Your task to perform on an android device: Is it going to rain this weekend? Image 0: 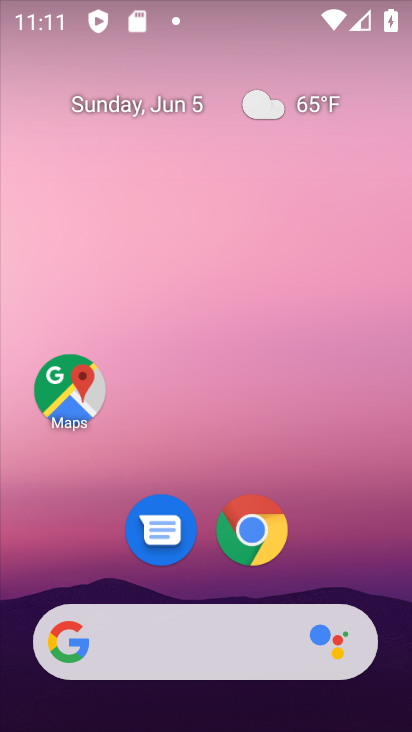
Step 0: drag from (375, 516) to (360, 2)
Your task to perform on an android device: Is it going to rain this weekend? Image 1: 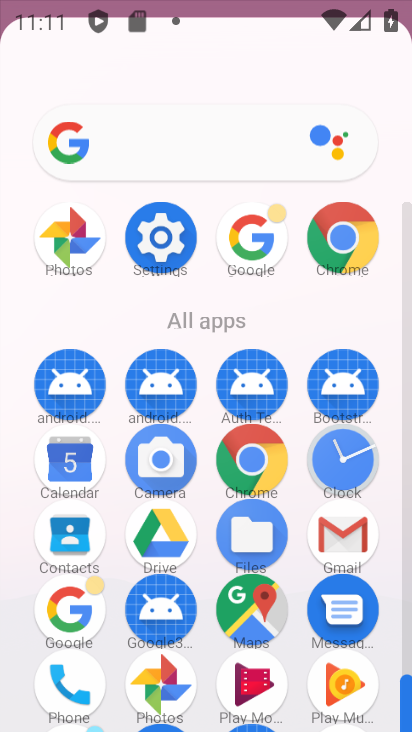
Step 1: press home button
Your task to perform on an android device: Is it going to rain this weekend? Image 2: 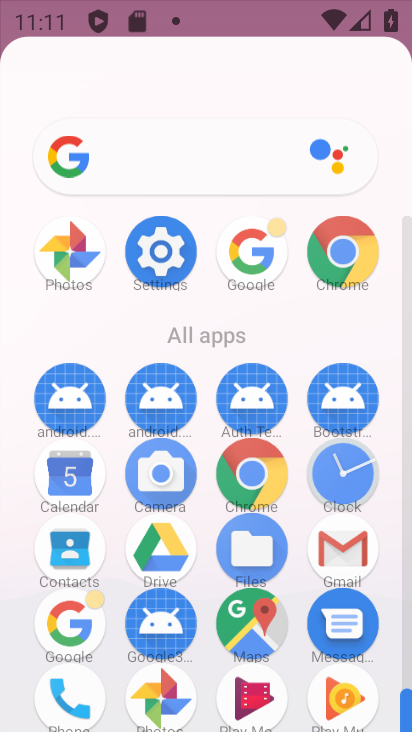
Step 2: drag from (360, 2) to (405, 73)
Your task to perform on an android device: Is it going to rain this weekend? Image 3: 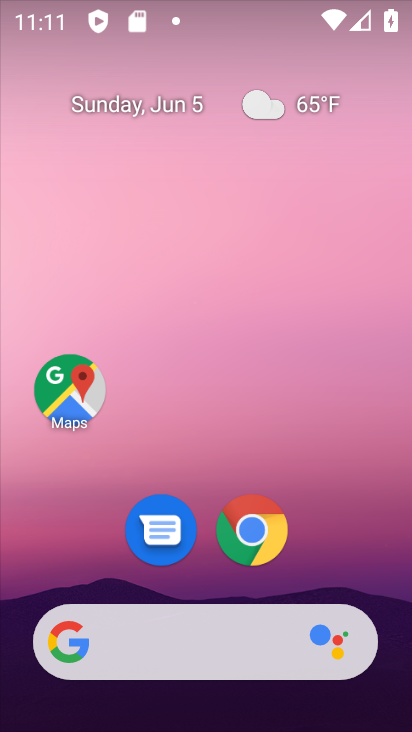
Step 3: click (315, 99)
Your task to perform on an android device: Is it going to rain this weekend? Image 4: 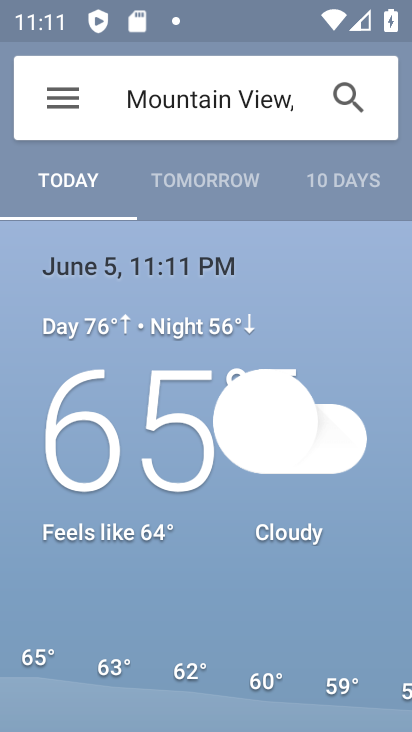
Step 4: click (339, 175)
Your task to perform on an android device: Is it going to rain this weekend? Image 5: 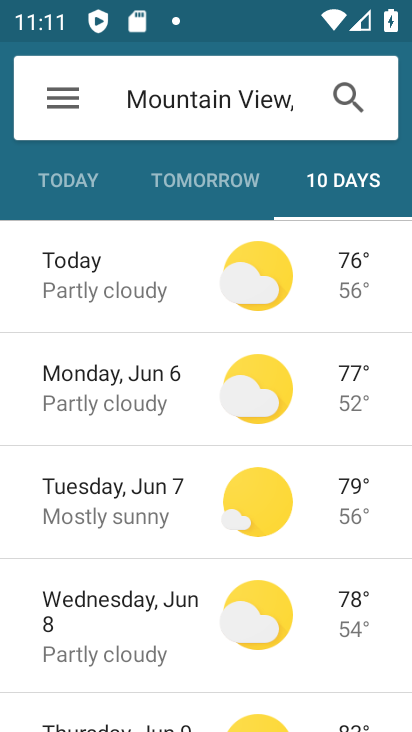
Step 5: task complete